Your task to perform on an android device: Open Google Chrome and open the bookmarks view Image 0: 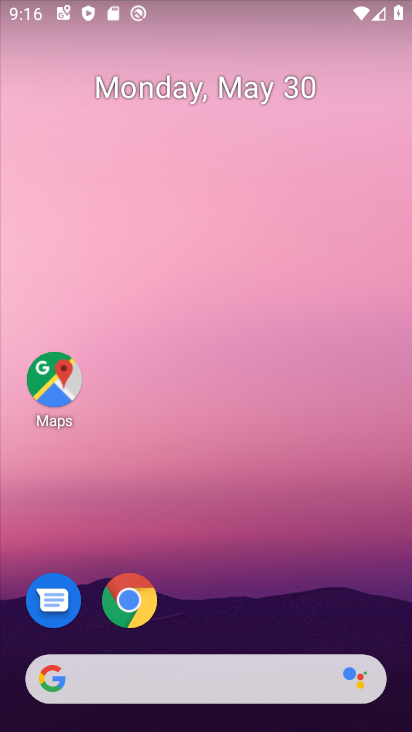
Step 0: press home button
Your task to perform on an android device: Open Google Chrome and open the bookmarks view Image 1: 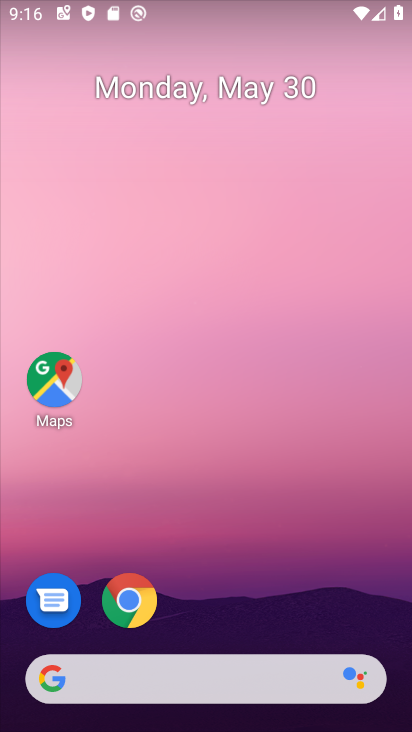
Step 1: drag from (275, 630) to (8, 2)
Your task to perform on an android device: Open Google Chrome and open the bookmarks view Image 2: 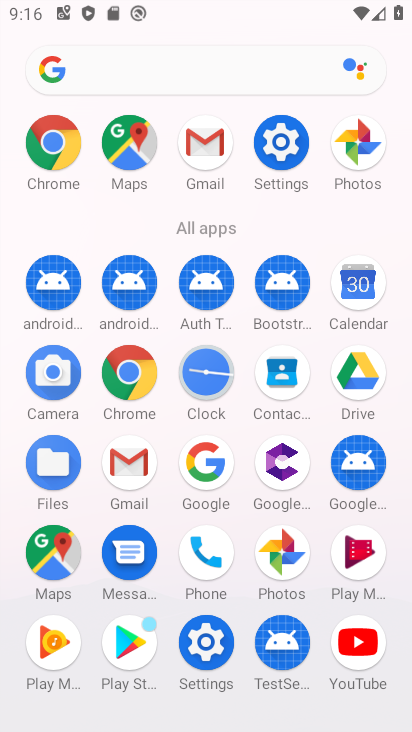
Step 2: click (50, 149)
Your task to perform on an android device: Open Google Chrome and open the bookmarks view Image 3: 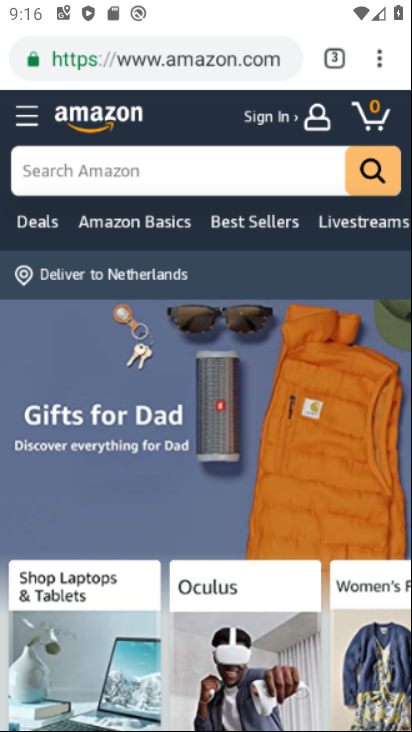
Step 3: drag from (381, 50) to (254, 232)
Your task to perform on an android device: Open Google Chrome and open the bookmarks view Image 4: 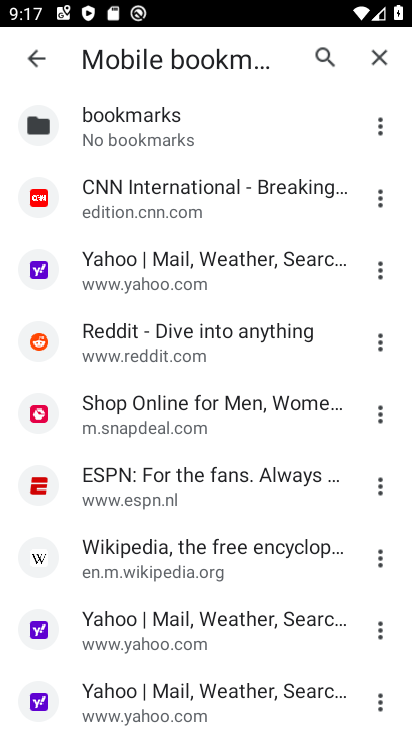
Step 4: click (140, 114)
Your task to perform on an android device: Open Google Chrome and open the bookmarks view Image 5: 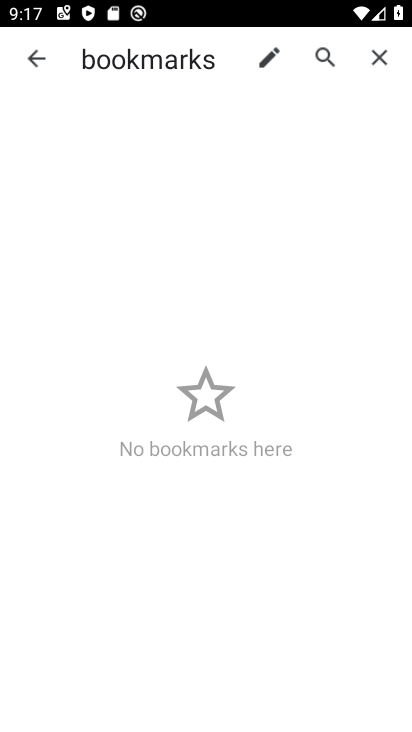
Step 5: task complete